Your task to perform on an android device: What's the weather today? Image 0: 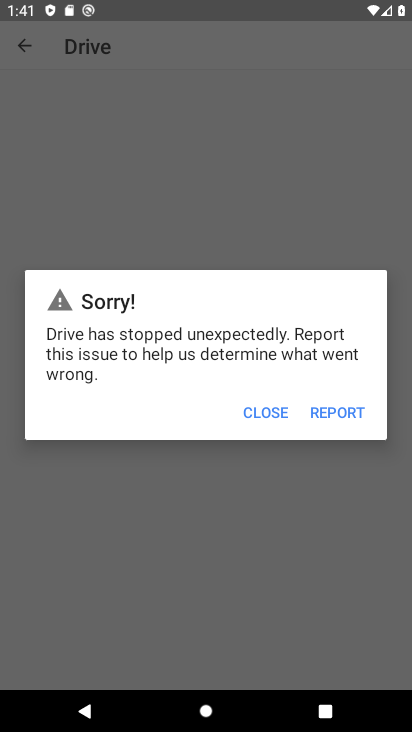
Step 0: press home button
Your task to perform on an android device: What's the weather today? Image 1: 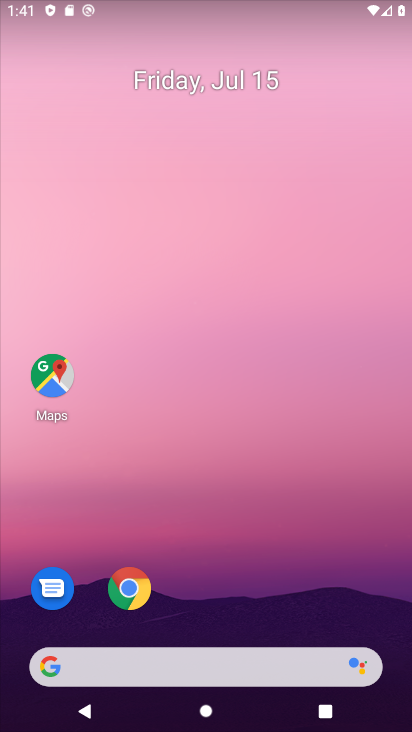
Step 1: click (190, 669)
Your task to perform on an android device: What's the weather today? Image 2: 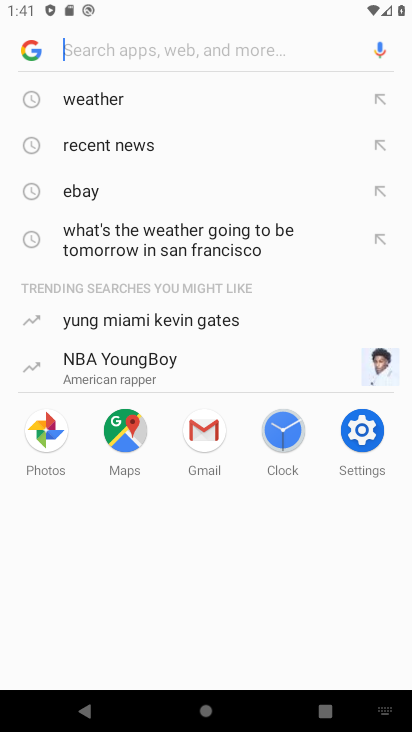
Step 2: type "what's the weather today?"
Your task to perform on an android device: What's the weather today? Image 3: 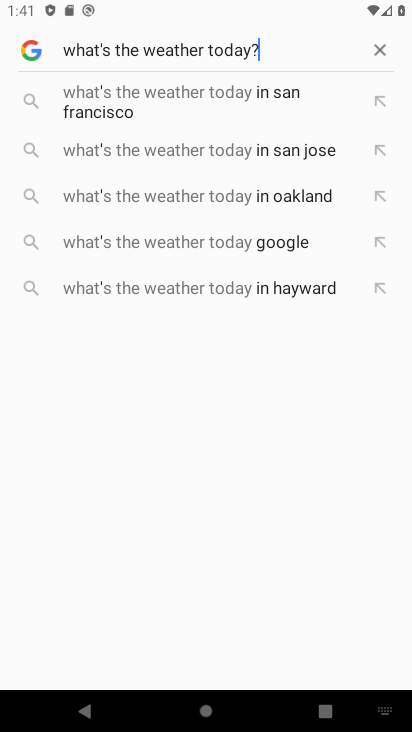
Step 3: click (267, 253)
Your task to perform on an android device: What's the weather today? Image 4: 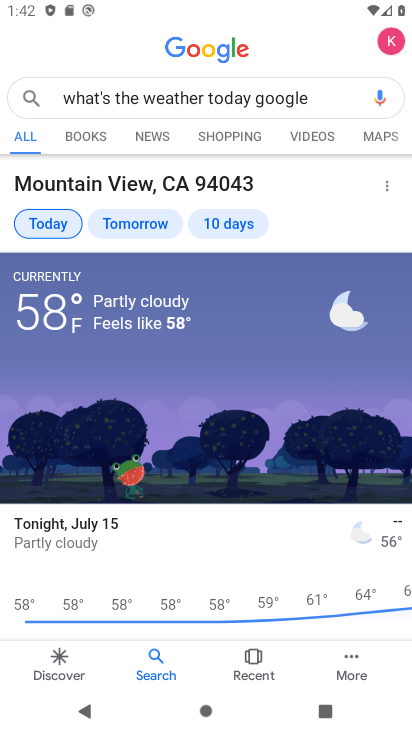
Step 4: task complete